Your task to perform on an android device: allow cookies in the chrome app Image 0: 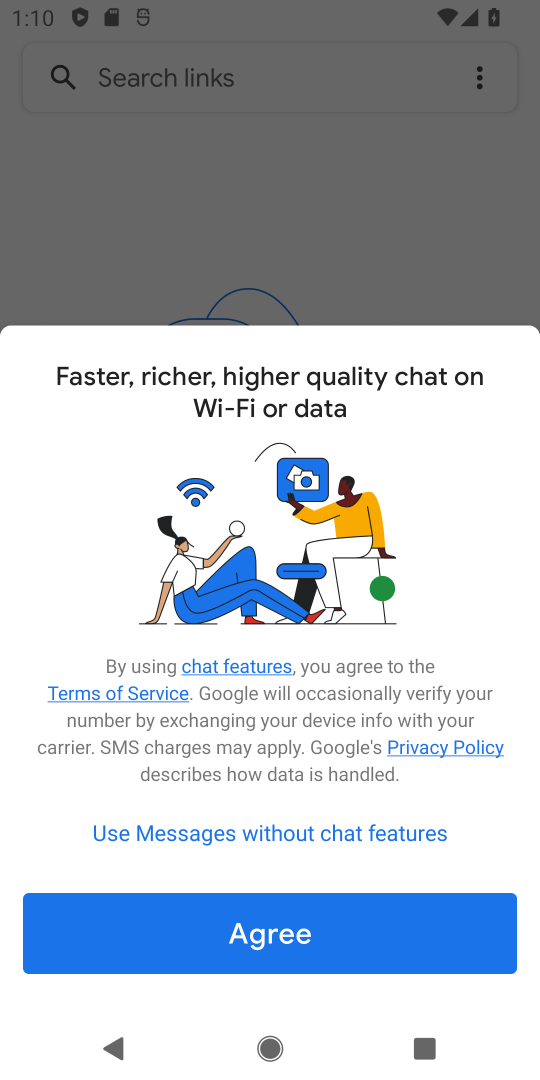
Step 0: press home button
Your task to perform on an android device: allow cookies in the chrome app Image 1: 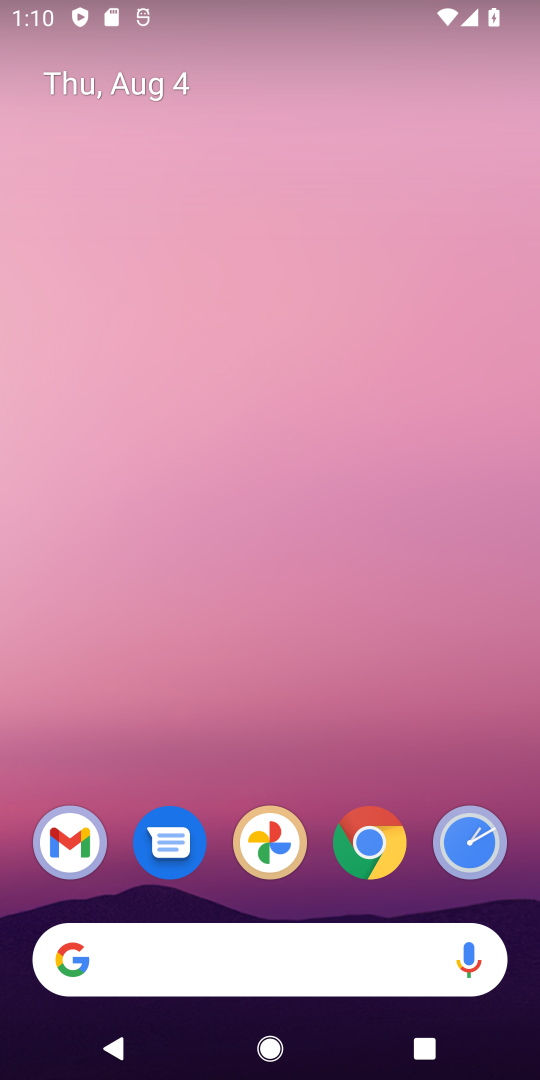
Step 1: click (367, 840)
Your task to perform on an android device: allow cookies in the chrome app Image 2: 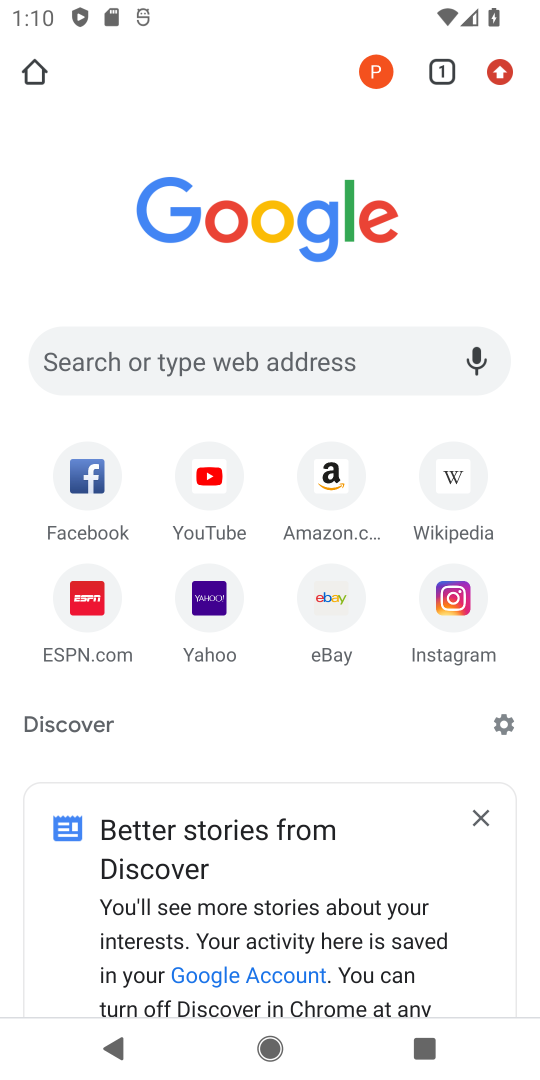
Step 2: click (503, 66)
Your task to perform on an android device: allow cookies in the chrome app Image 3: 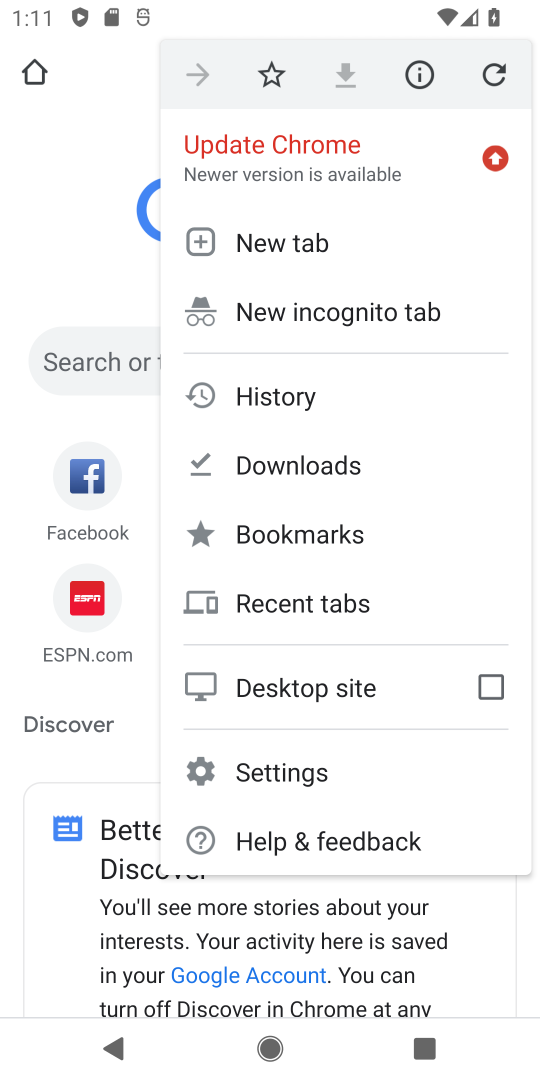
Step 3: click (304, 778)
Your task to perform on an android device: allow cookies in the chrome app Image 4: 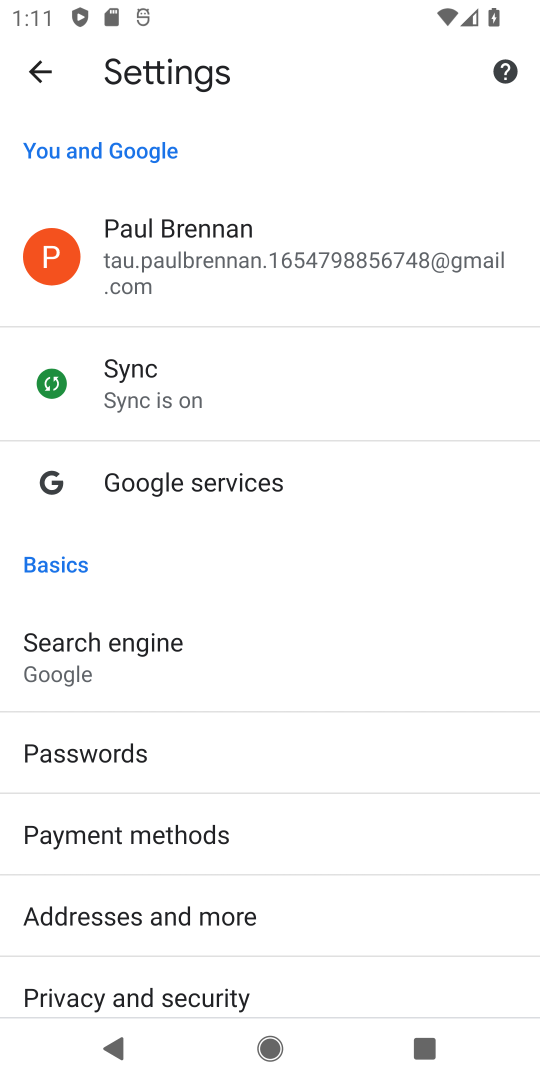
Step 4: drag from (171, 969) to (166, 337)
Your task to perform on an android device: allow cookies in the chrome app Image 5: 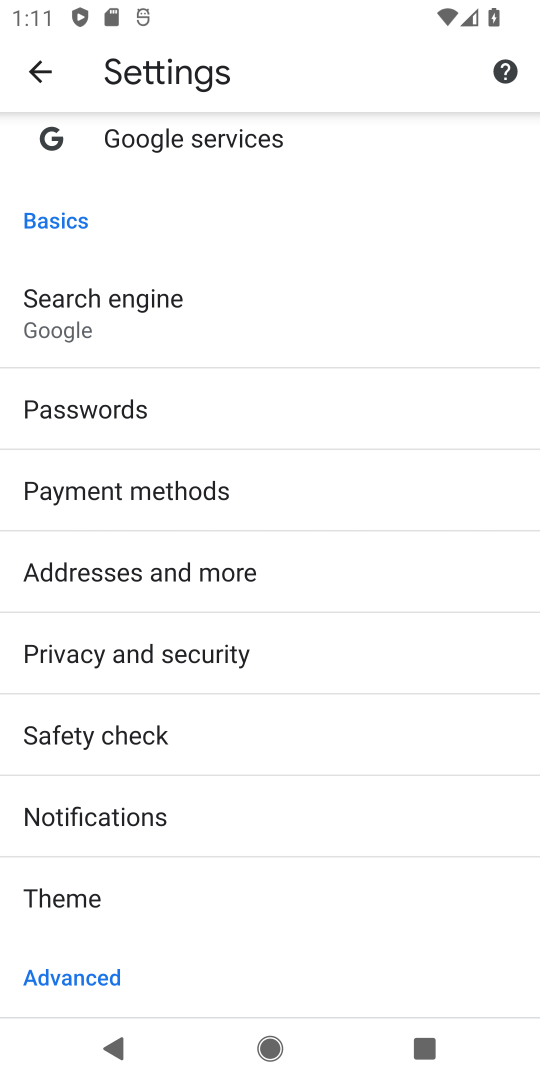
Step 5: drag from (162, 878) to (162, 393)
Your task to perform on an android device: allow cookies in the chrome app Image 6: 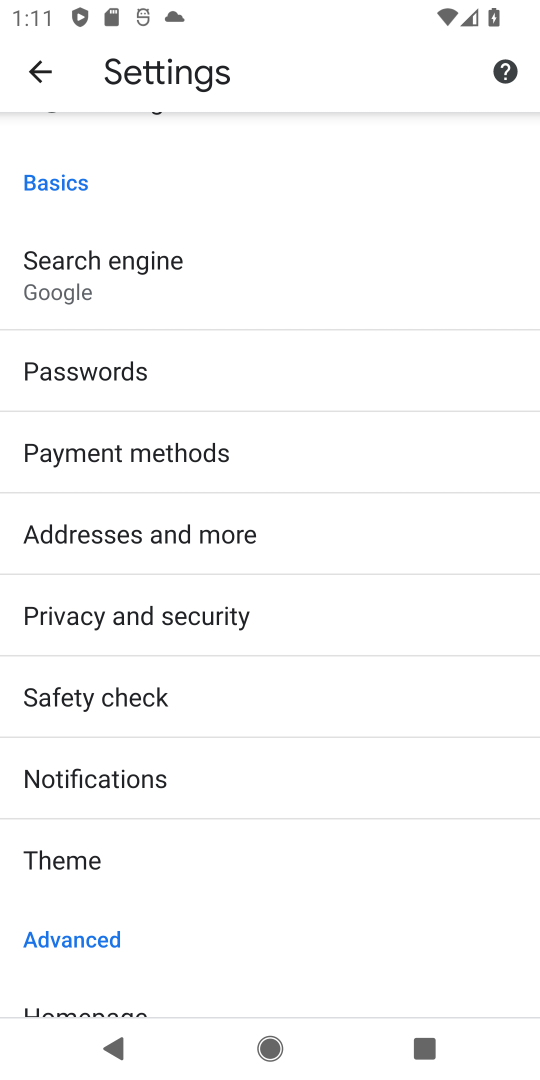
Step 6: drag from (196, 896) to (192, 211)
Your task to perform on an android device: allow cookies in the chrome app Image 7: 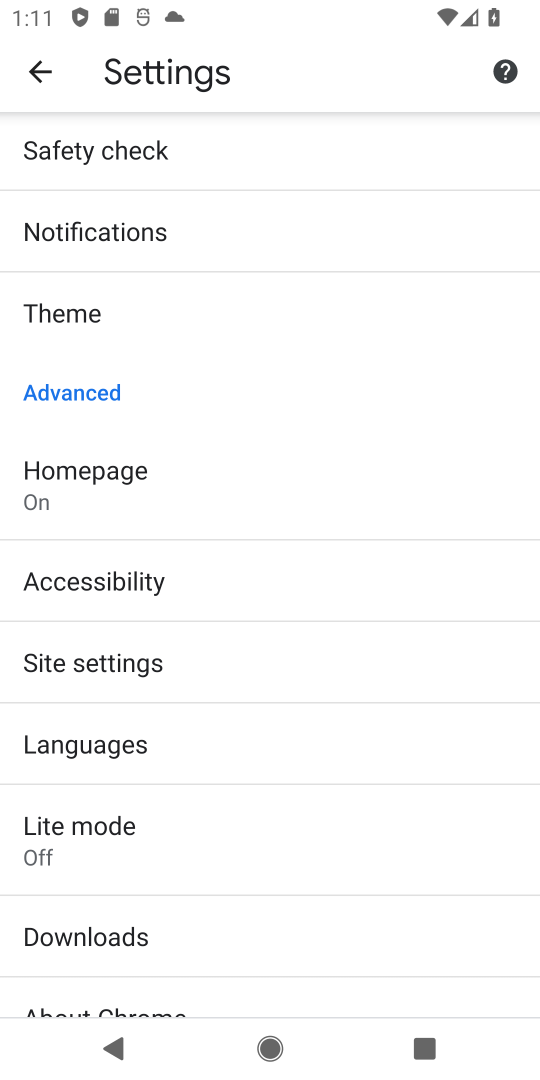
Step 7: click (145, 677)
Your task to perform on an android device: allow cookies in the chrome app Image 8: 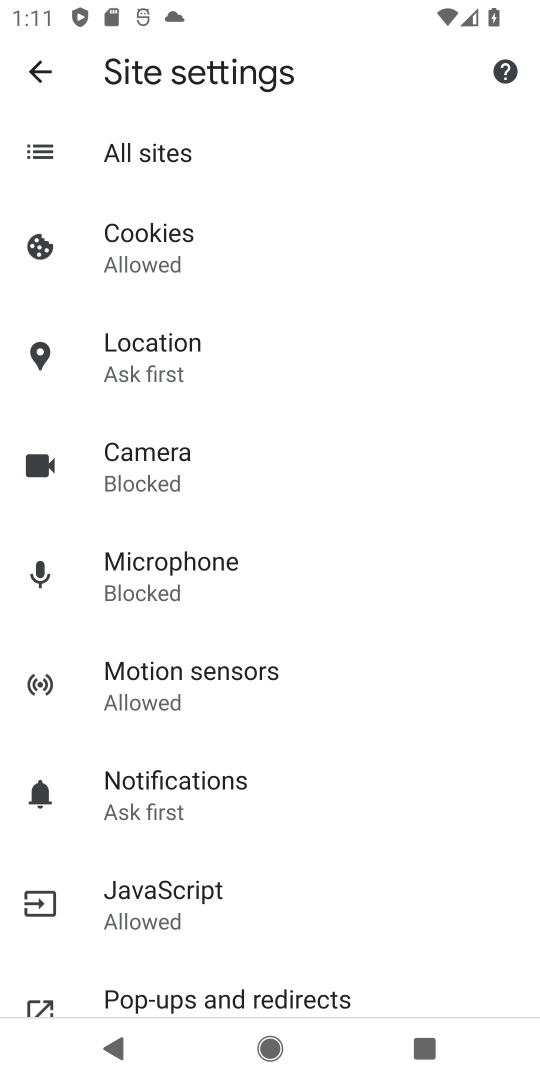
Step 8: click (249, 235)
Your task to perform on an android device: allow cookies in the chrome app Image 9: 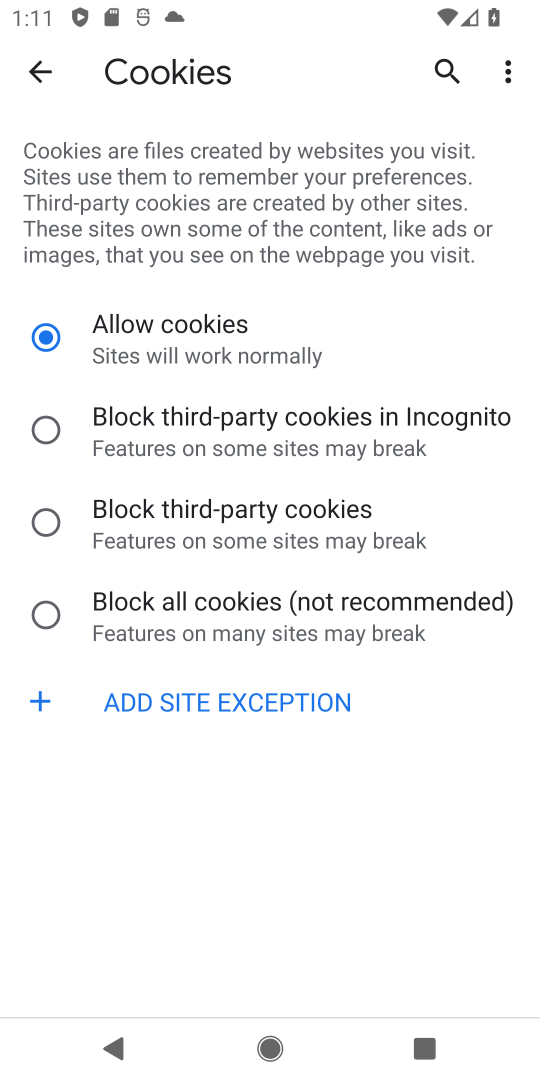
Step 9: task complete